Your task to perform on an android device: Search for vegetarian restaurants on Maps Image 0: 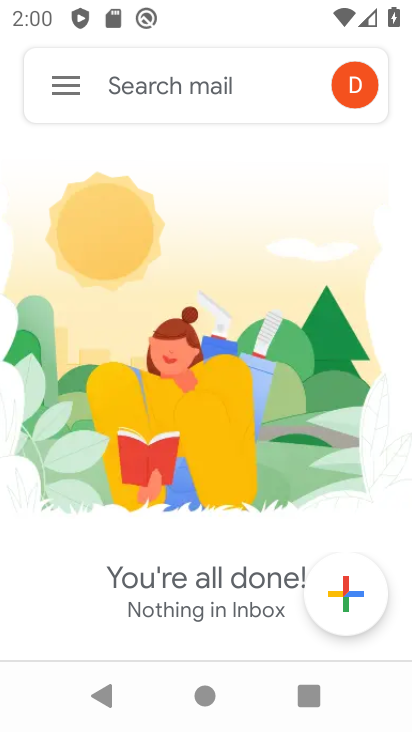
Step 0: press home button
Your task to perform on an android device: Search for vegetarian restaurants on Maps Image 1: 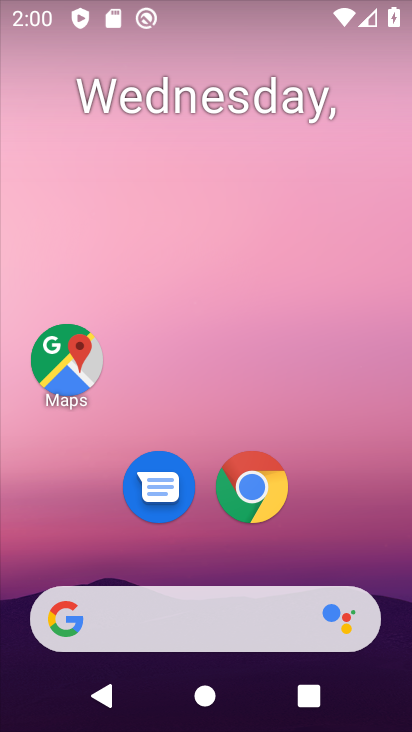
Step 1: click (58, 365)
Your task to perform on an android device: Search for vegetarian restaurants on Maps Image 2: 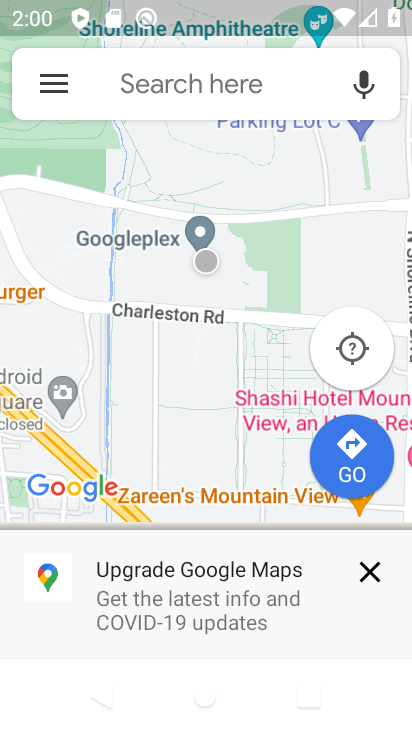
Step 2: click (208, 81)
Your task to perform on an android device: Search for vegetarian restaurants on Maps Image 3: 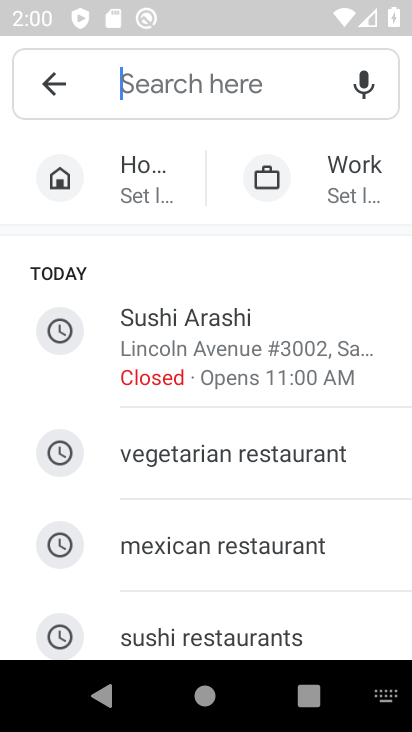
Step 3: click (268, 449)
Your task to perform on an android device: Search for vegetarian restaurants on Maps Image 4: 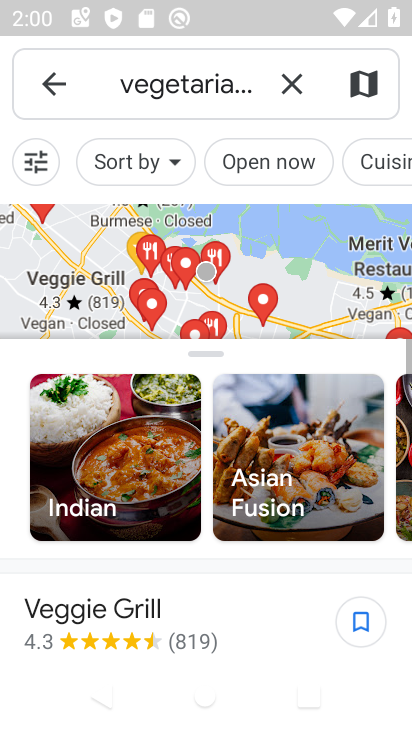
Step 4: task complete